Your task to perform on an android device: See recent photos Image 0: 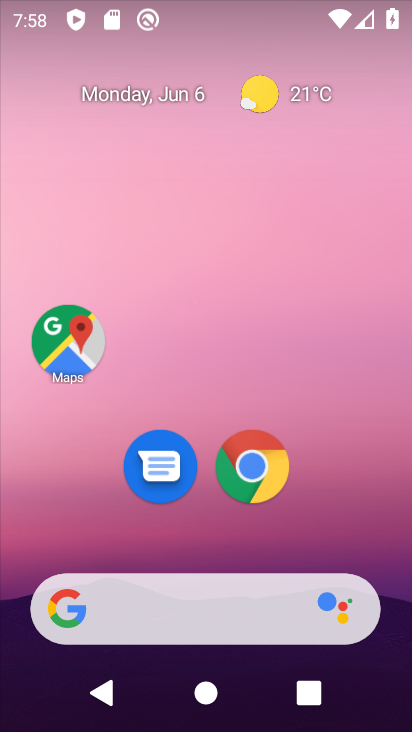
Step 0: drag from (226, 290) to (228, 161)
Your task to perform on an android device: See recent photos Image 1: 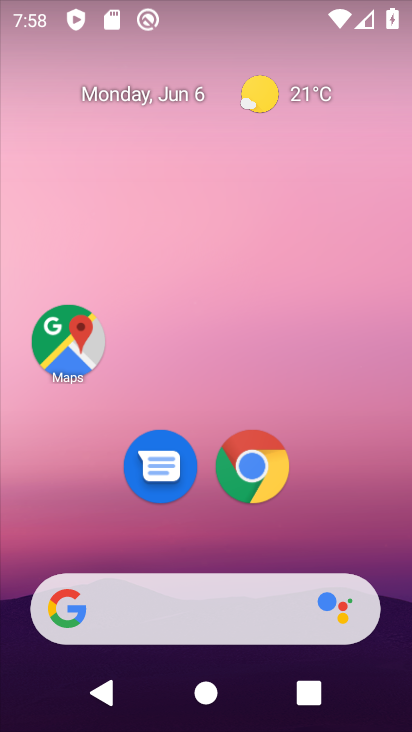
Step 1: drag from (234, 539) to (332, 55)
Your task to perform on an android device: See recent photos Image 2: 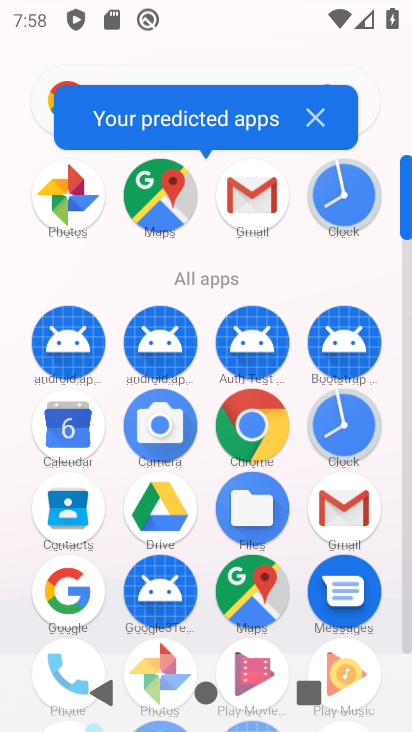
Step 2: drag from (227, 495) to (246, 318)
Your task to perform on an android device: See recent photos Image 3: 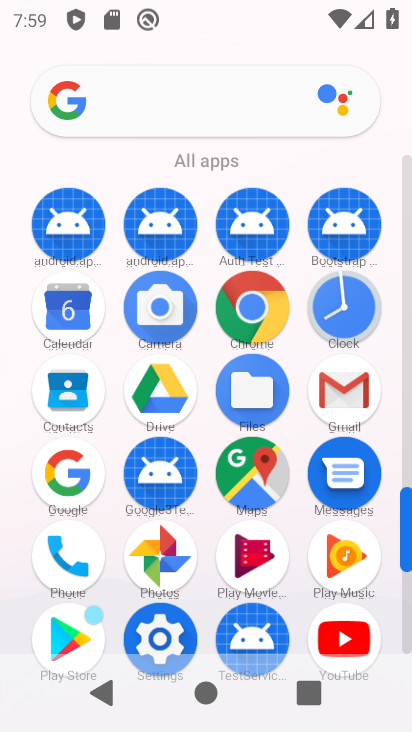
Step 3: click (166, 562)
Your task to perform on an android device: See recent photos Image 4: 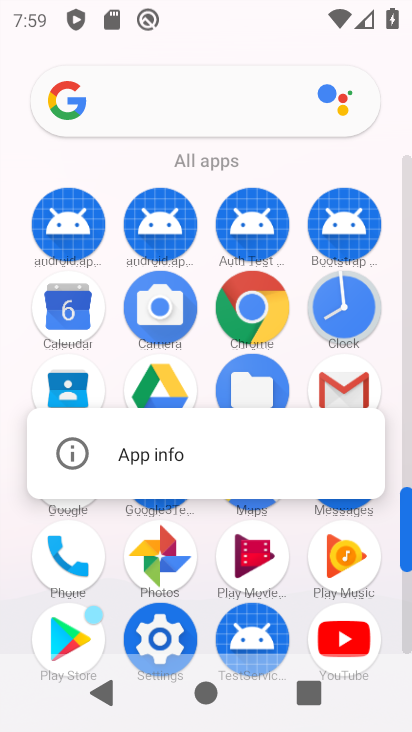
Step 4: click (156, 452)
Your task to perform on an android device: See recent photos Image 5: 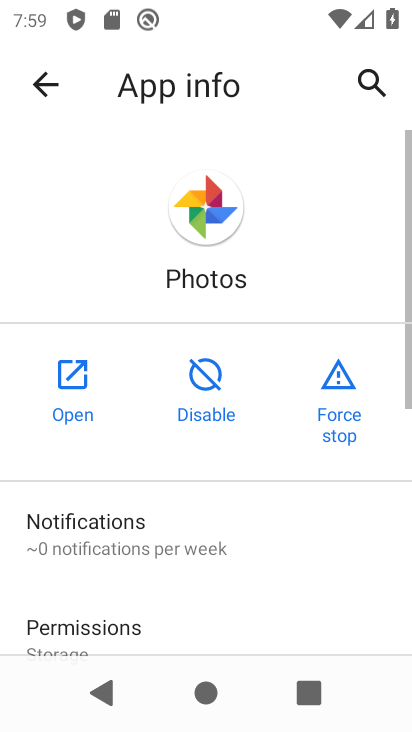
Step 5: click (80, 367)
Your task to perform on an android device: See recent photos Image 6: 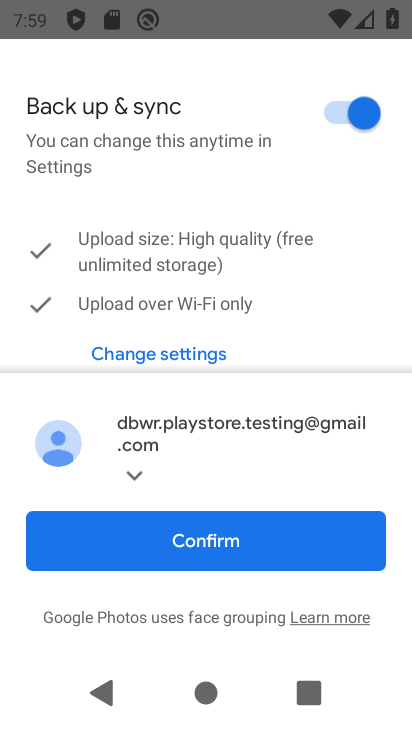
Step 6: click (150, 569)
Your task to perform on an android device: See recent photos Image 7: 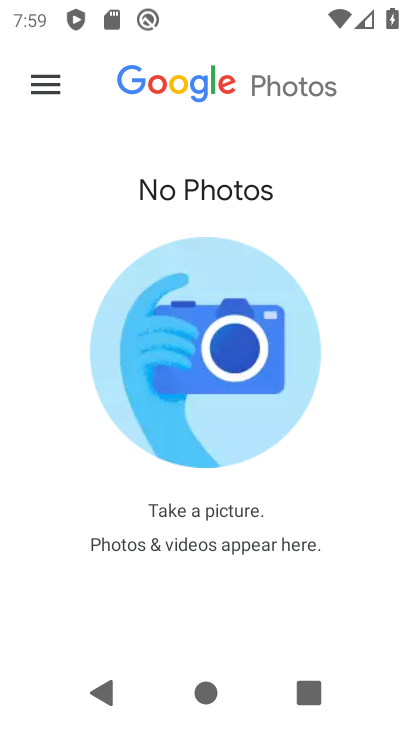
Step 7: drag from (232, 392) to (256, 77)
Your task to perform on an android device: See recent photos Image 8: 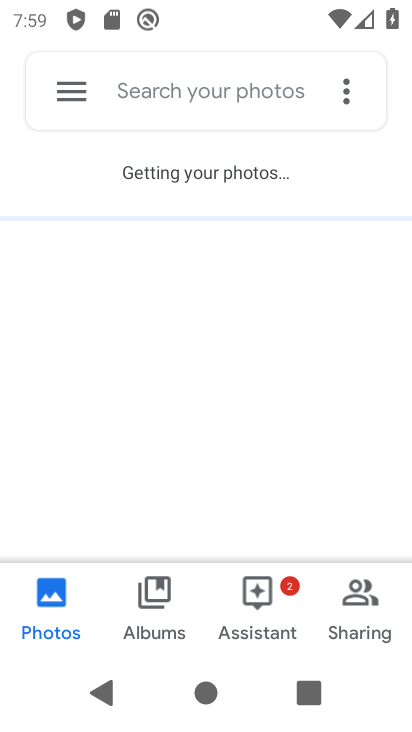
Step 8: click (170, 604)
Your task to perform on an android device: See recent photos Image 9: 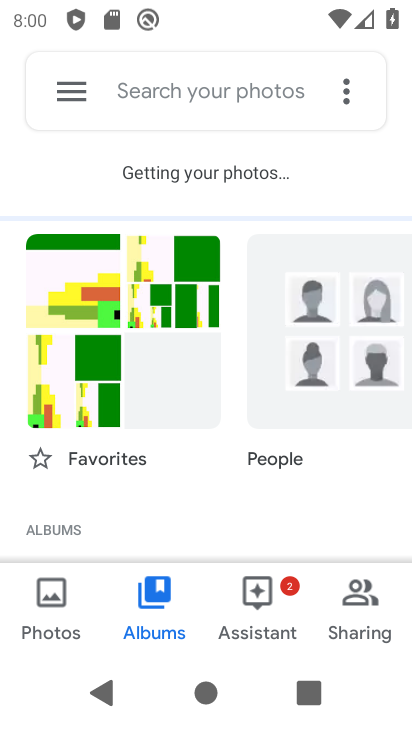
Step 9: drag from (76, 277) to (139, 68)
Your task to perform on an android device: See recent photos Image 10: 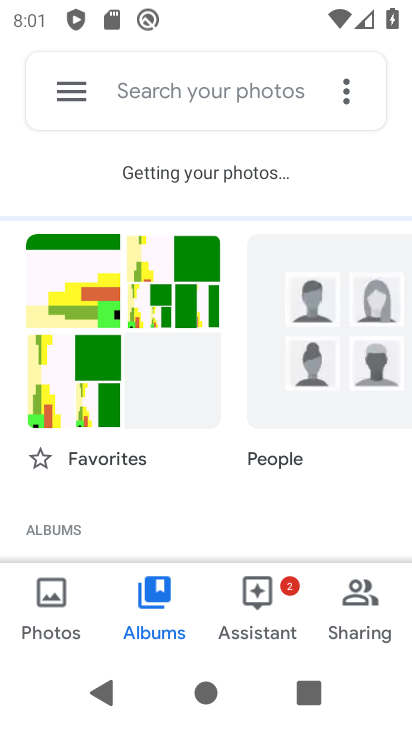
Step 10: click (51, 301)
Your task to perform on an android device: See recent photos Image 11: 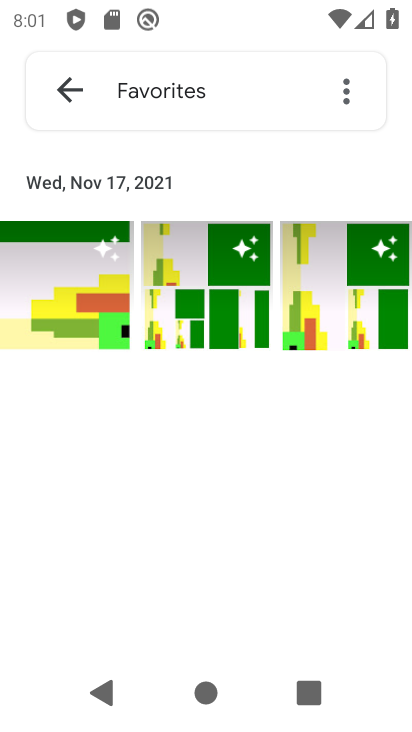
Step 11: click (90, 285)
Your task to perform on an android device: See recent photos Image 12: 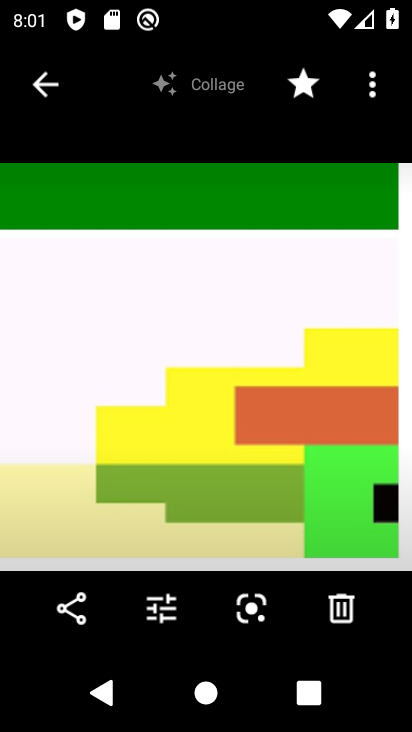
Step 12: task complete